Your task to perform on an android device: Do I have any events tomorrow? Image 0: 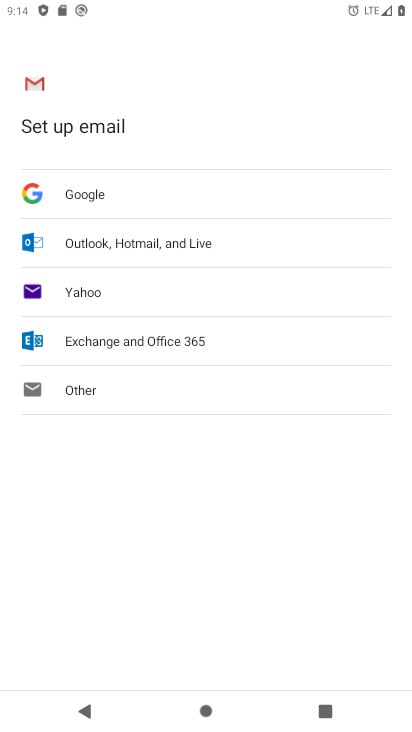
Step 0: press home button
Your task to perform on an android device: Do I have any events tomorrow? Image 1: 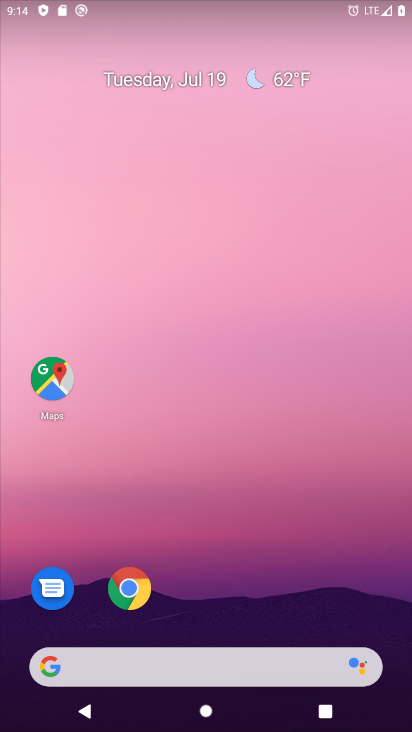
Step 1: drag from (251, 534) to (323, 13)
Your task to perform on an android device: Do I have any events tomorrow? Image 2: 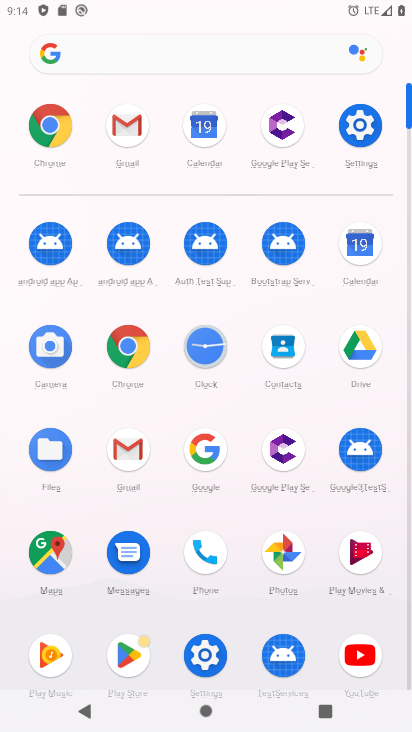
Step 2: click (362, 248)
Your task to perform on an android device: Do I have any events tomorrow? Image 3: 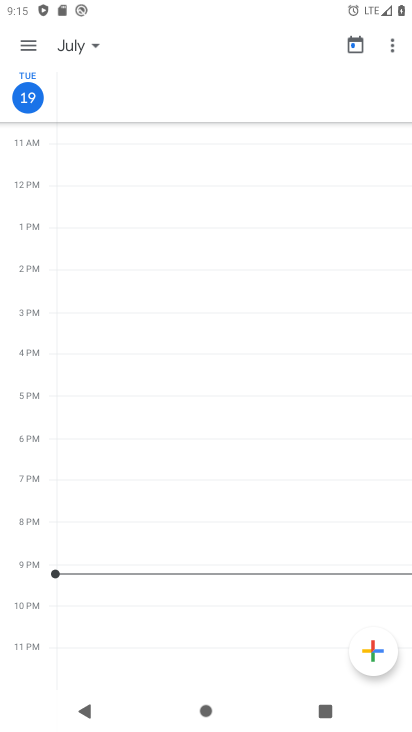
Step 3: click (67, 47)
Your task to perform on an android device: Do I have any events tomorrow? Image 4: 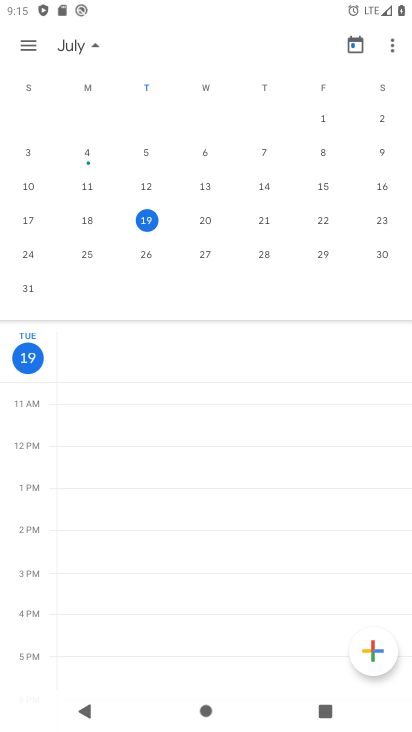
Step 4: click (214, 224)
Your task to perform on an android device: Do I have any events tomorrow? Image 5: 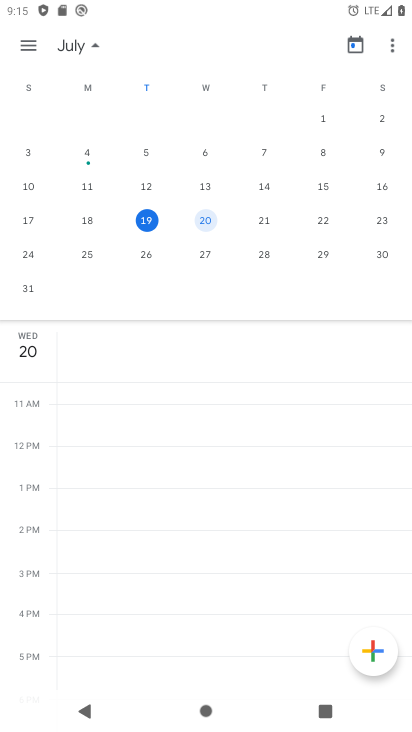
Step 5: task complete